Your task to perform on an android device: Open calendar and show me the third week of next month Image 0: 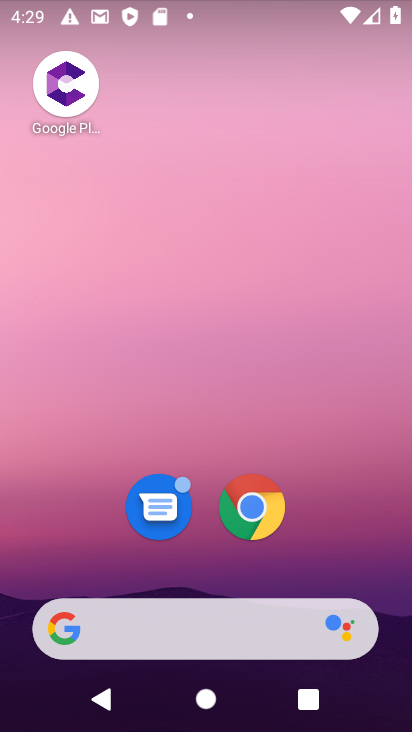
Step 0: drag from (159, 586) to (218, 162)
Your task to perform on an android device: Open calendar and show me the third week of next month Image 1: 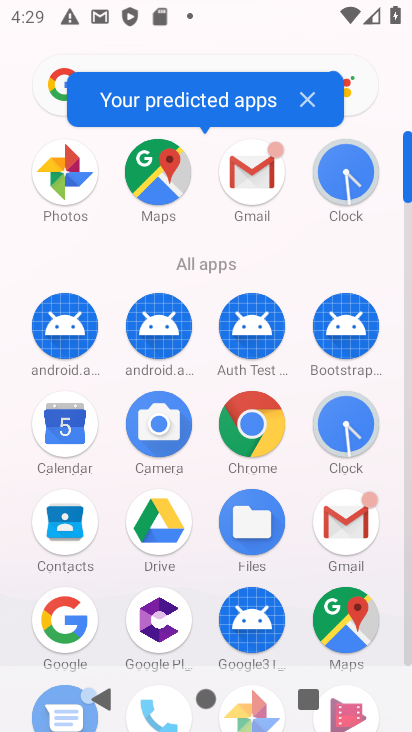
Step 1: click (67, 432)
Your task to perform on an android device: Open calendar and show me the third week of next month Image 2: 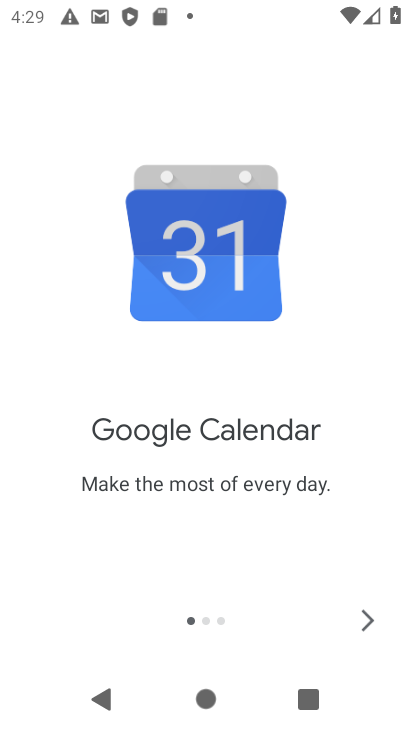
Step 2: click (370, 616)
Your task to perform on an android device: Open calendar and show me the third week of next month Image 3: 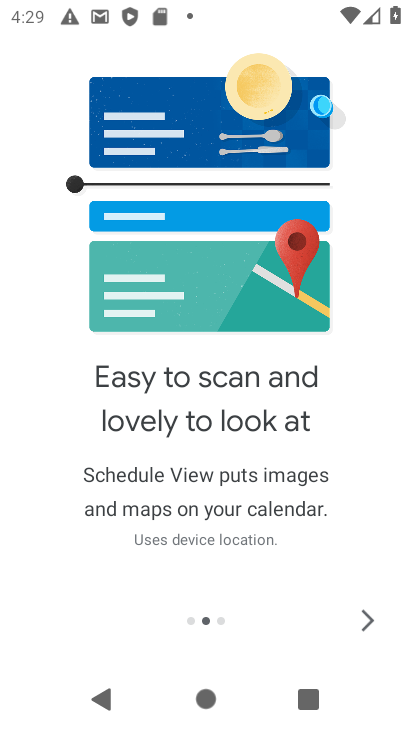
Step 3: click (370, 616)
Your task to perform on an android device: Open calendar and show me the third week of next month Image 4: 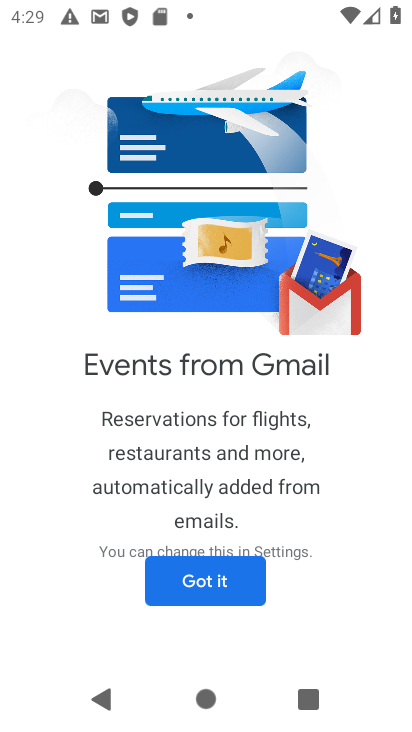
Step 4: click (175, 584)
Your task to perform on an android device: Open calendar and show me the third week of next month Image 5: 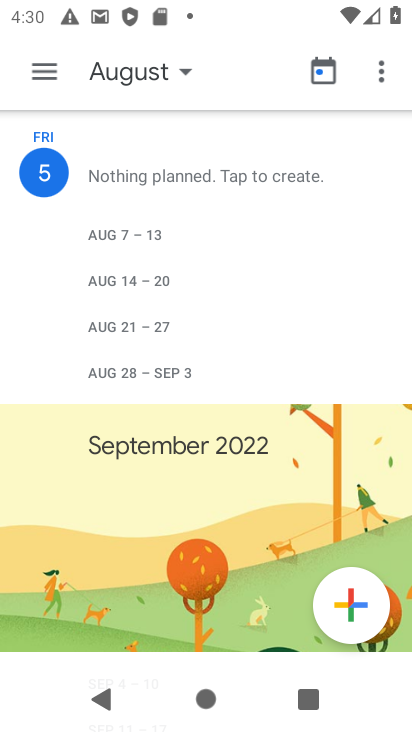
Step 5: click (141, 63)
Your task to perform on an android device: Open calendar and show me the third week of next month Image 6: 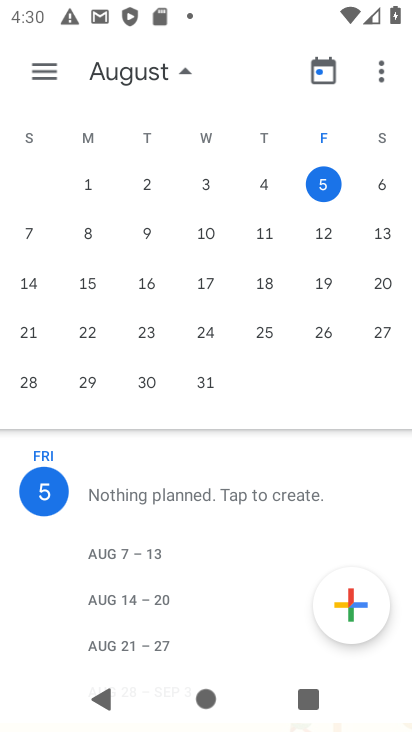
Step 6: drag from (300, 299) to (38, 293)
Your task to perform on an android device: Open calendar and show me the third week of next month Image 7: 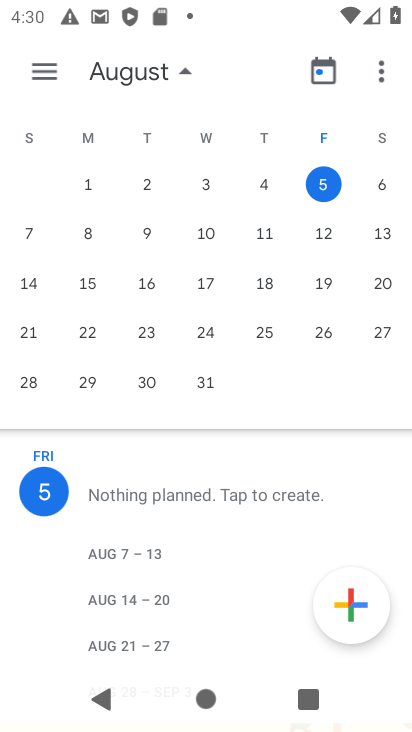
Step 7: click (27, 274)
Your task to perform on an android device: Open calendar and show me the third week of next month Image 8: 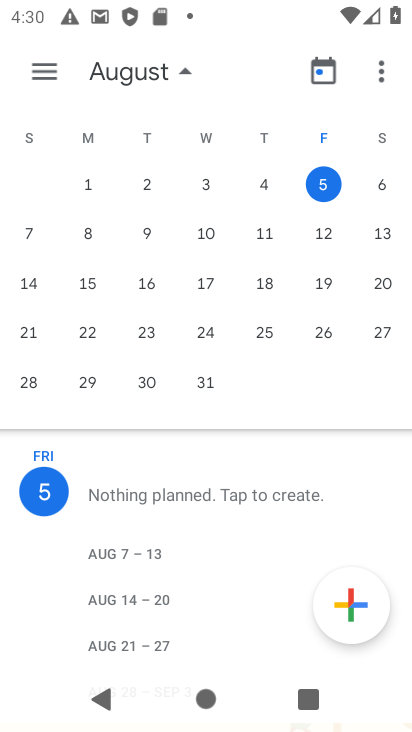
Step 8: drag from (373, 291) to (0, 276)
Your task to perform on an android device: Open calendar and show me the third week of next month Image 9: 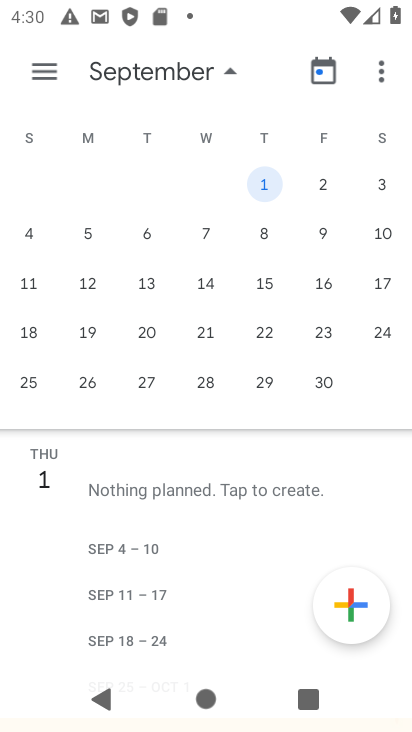
Step 9: click (23, 282)
Your task to perform on an android device: Open calendar and show me the third week of next month Image 10: 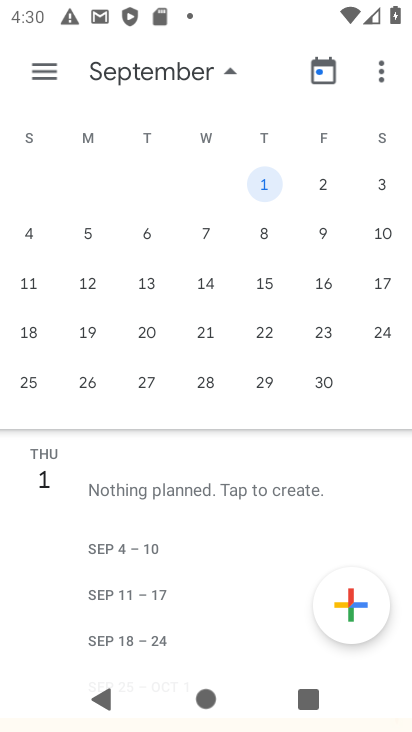
Step 10: click (36, 284)
Your task to perform on an android device: Open calendar and show me the third week of next month Image 11: 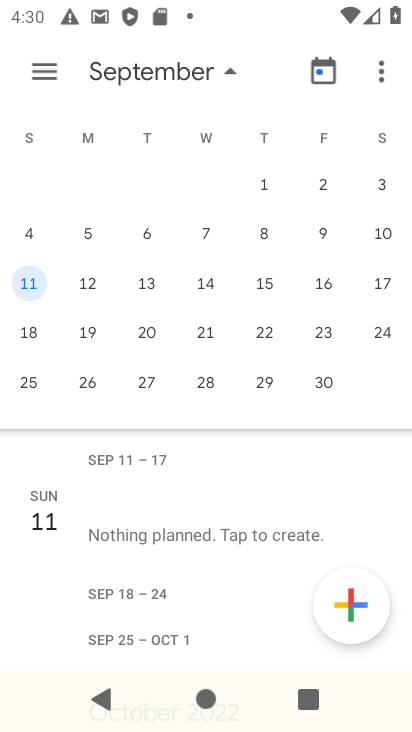
Step 11: task complete